Your task to perform on an android device: Open Reddit.com Image 0: 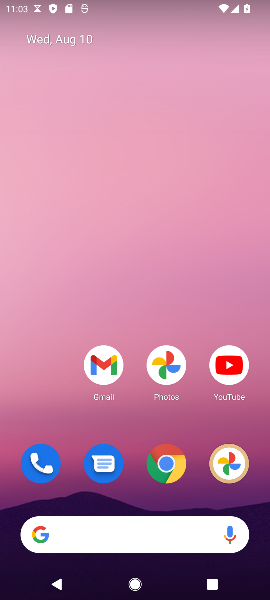
Step 0: click (64, 531)
Your task to perform on an android device: Open Reddit.com Image 1: 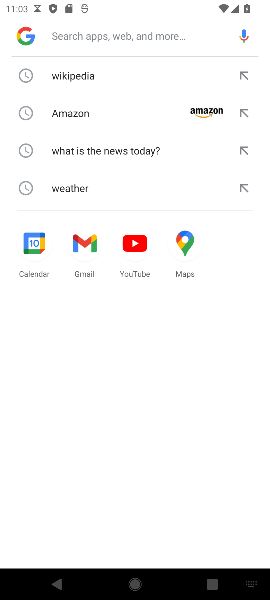
Step 1: type " Reddit.com"
Your task to perform on an android device: Open Reddit.com Image 2: 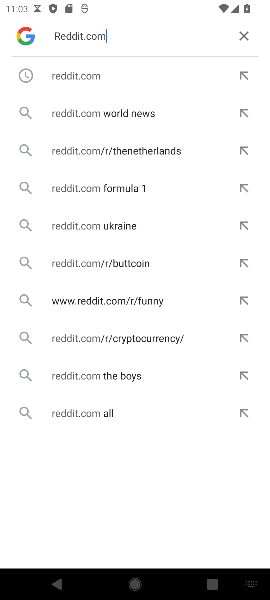
Step 2: click (92, 76)
Your task to perform on an android device: Open Reddit.com Image 3: 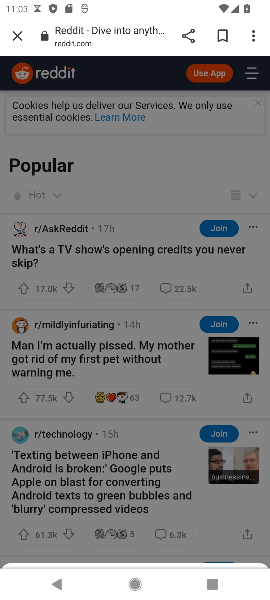
Step 3: task complete